Your task to perform on an android device: move a message to another label in the gmail app Image 0: 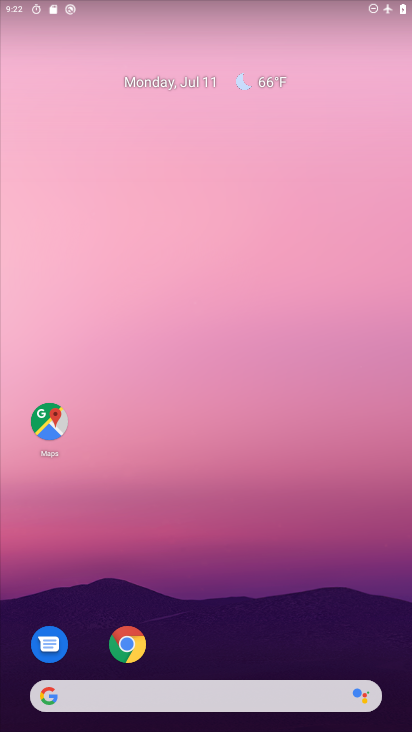
Step 0: drag from (309, 563) to (241, 57)
Your task to perform on an android device: move a message to another label in the gmail app Image 1: 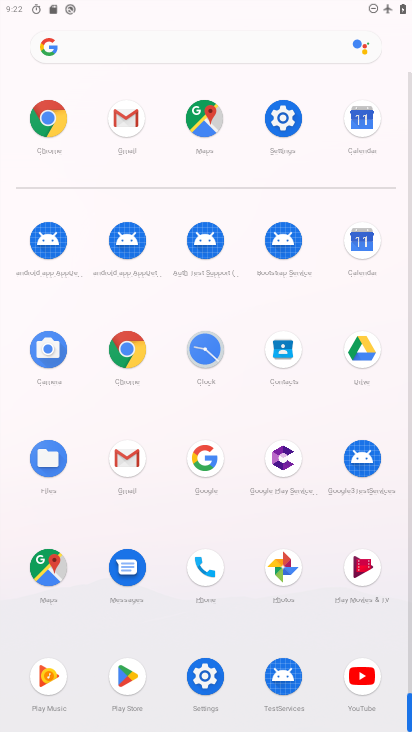
Step 1: click (122, 119)
Your task to perform on an android device: move a message to another label in the gmail app Image 2: 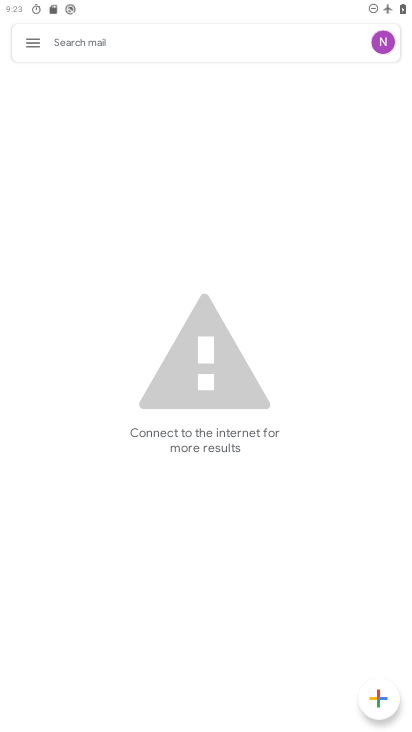
Step 2: task complete